Your task to perform on an android device: Play the last video I watched on Youtube Image 0: 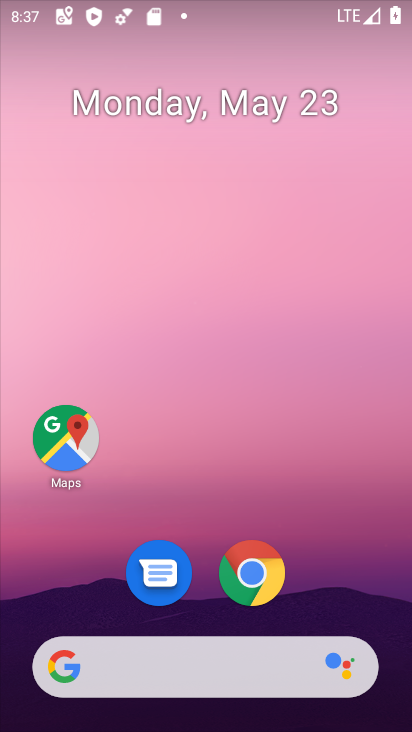
Step 0: drag from (246, 457) to (185, 58)
Your task to perform on an android device: Play the last video I watched on Youtube Image 1: 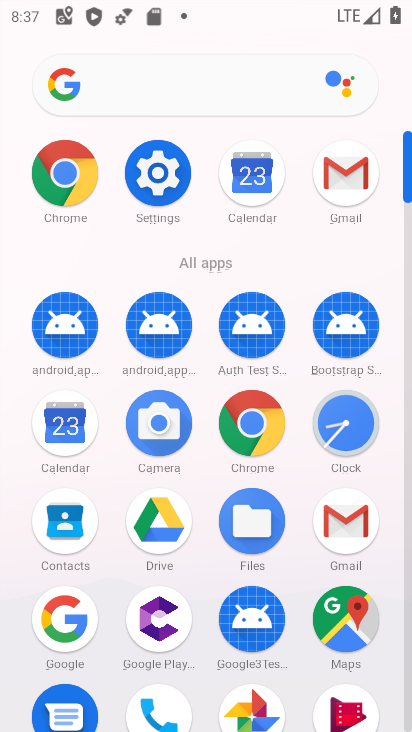
Step 1: drag from (201, 531) to (196, 287)
Your task to perform on an android device: Play the last video I watched on Youtube Image 2: 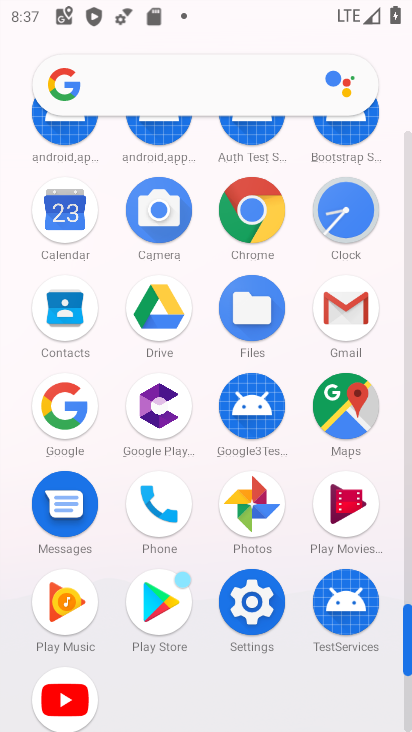
Step 2: click (76, 689)
Your task to perform on an android device: Play the last video I watched on Youtube Image 3: 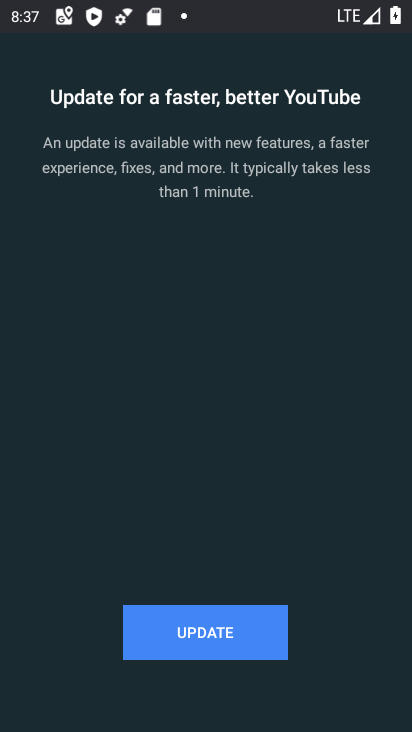
Step 3: click (194, 629)
Your task to perform on an android device: Play the last video I watched on Youtube Image 4: 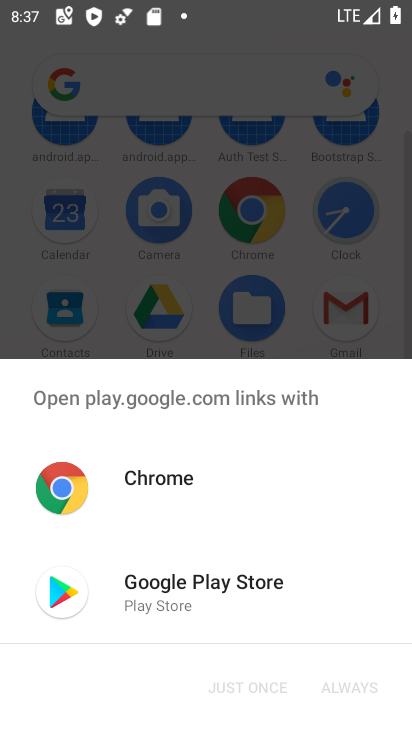
Step 4: click (202, 579)
Your task to perform on an android device: Play the last video I watched on Youtube Image 5: 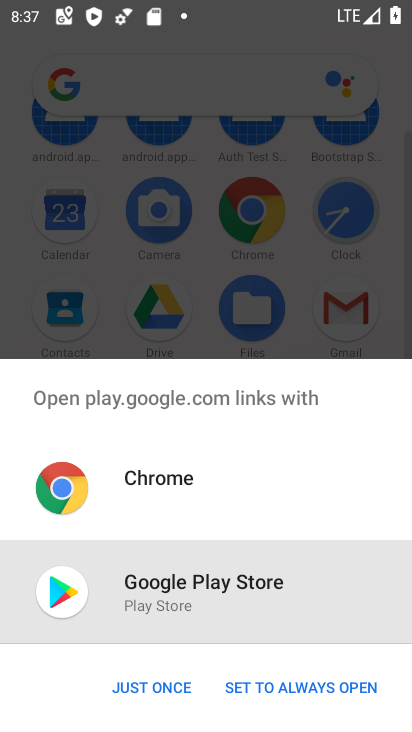
Step 5: click (142, 680)
Your task to perform on an android device: Play the last video I watched on Youtube Image 6: 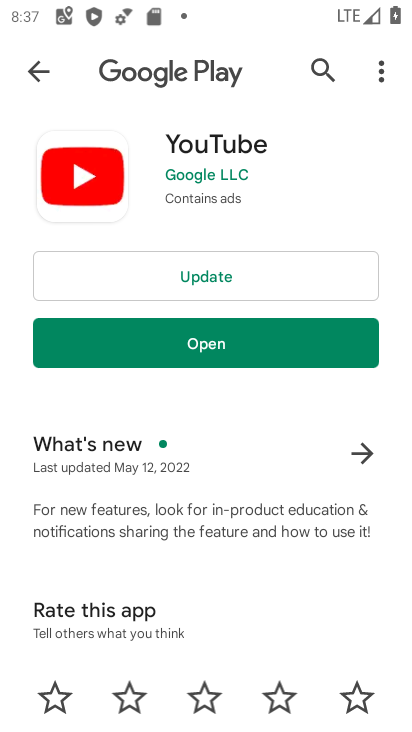
Step 6: click (298, 278)
Your task to perform on an android device: Play the last video I watched on Youtube Image 7: 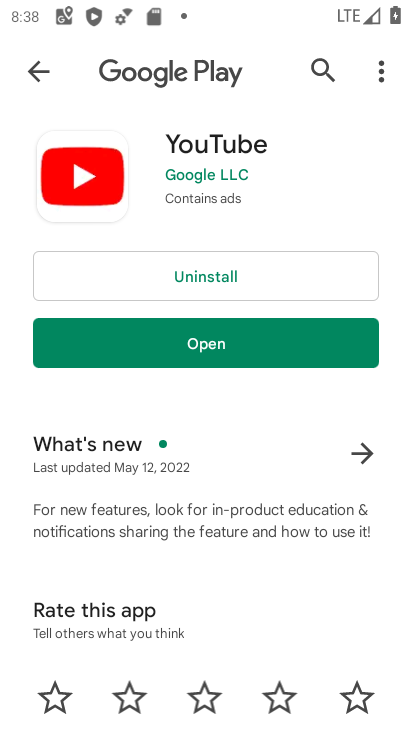
Step 7: click (295, 331)
Your task to perform on an android device: Play the last video I watched on Youtube Image 8: 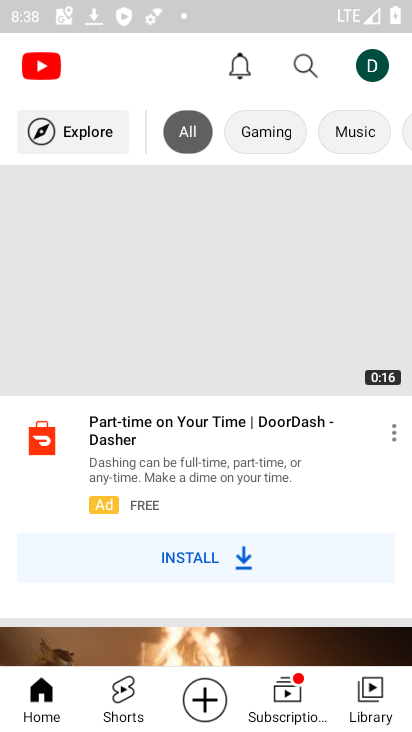
Step 8: click (363, 687)
Your task to perform on an android device: Play the last video I watched on Youtube Image 9: 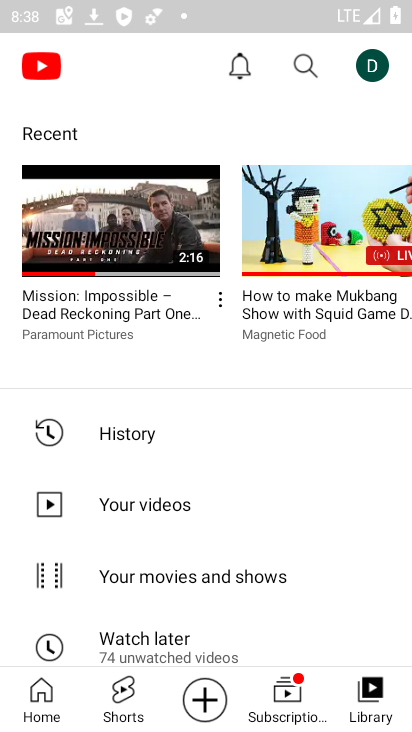
Step 9: click (133, 418)
Your task to perform on an android device: Play the last video I watched on Youtube Image 10: 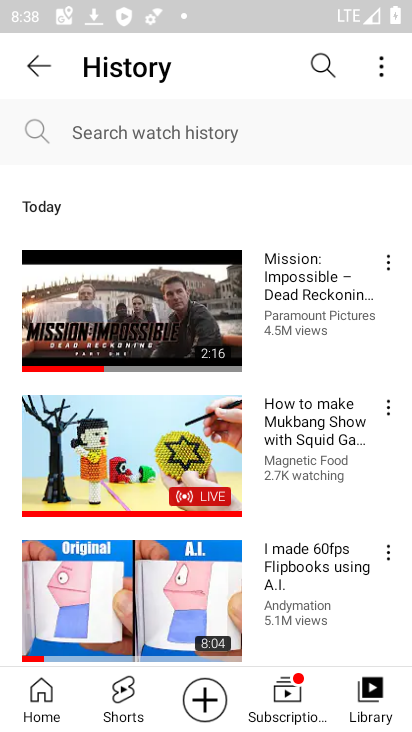
Step 10: click (126, 314)
Your task to perform on an android device: Play the last video I watched on Youtube Image 11: 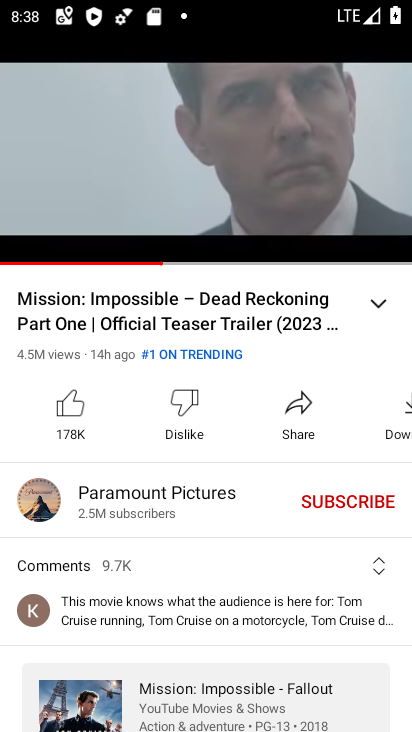
Step 11: task complete